Your task to perform on an android device: stop showing notifications on the lock screen Image 0: 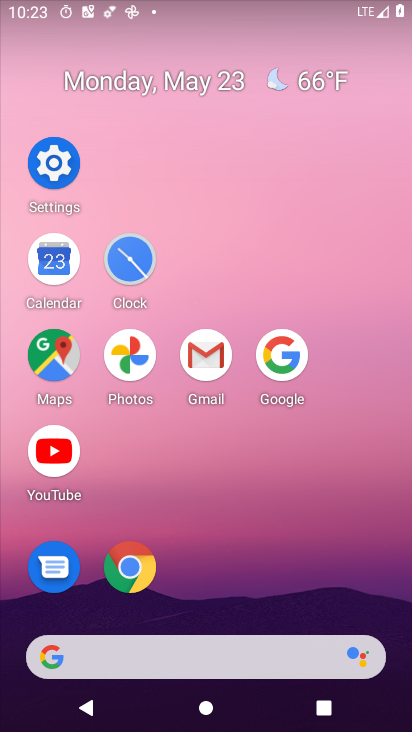
Step 0: click (58, 175)
Your task to perform on an android device: stop showing notifications on the lock screen Image 1: 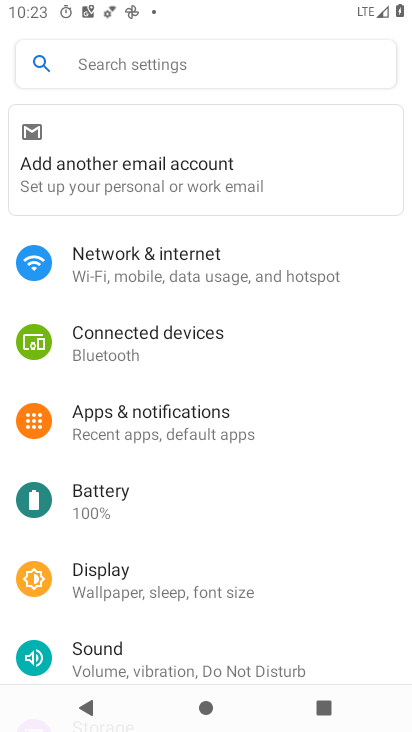
Step 1: click (176, 417)
Your task to perform on an android device: stop showing notifications on the lock screen Image 2: 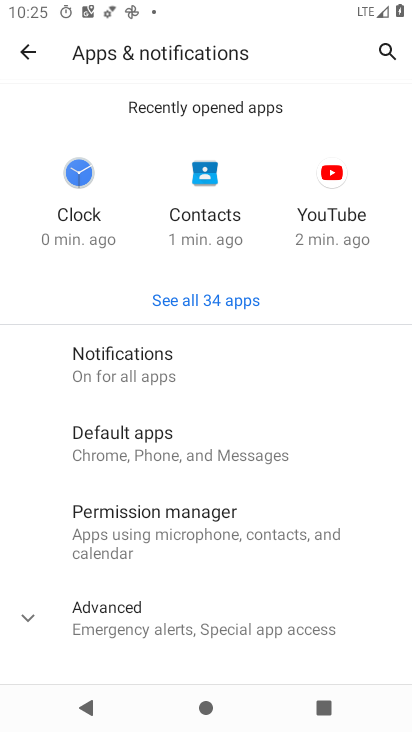
Step 2: click (116, 375)
Your task to perform on an android device: stop showing notifications on the lock screen Image 3: 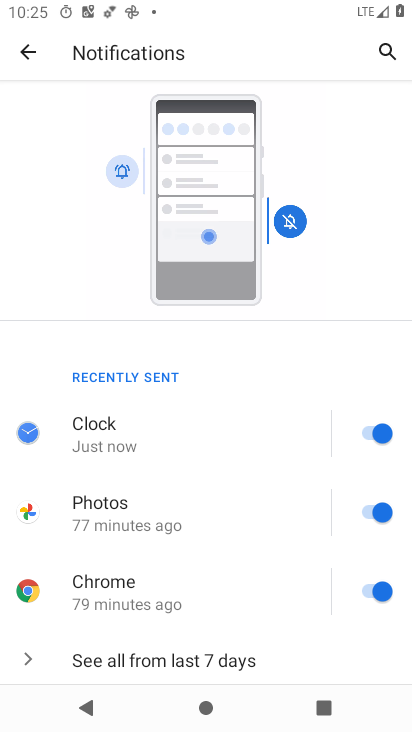
Step 3: drag from (205, 598) to (214, 122)
Your task to perform on an android device: stop showing notifications on the lock screen Image 4: 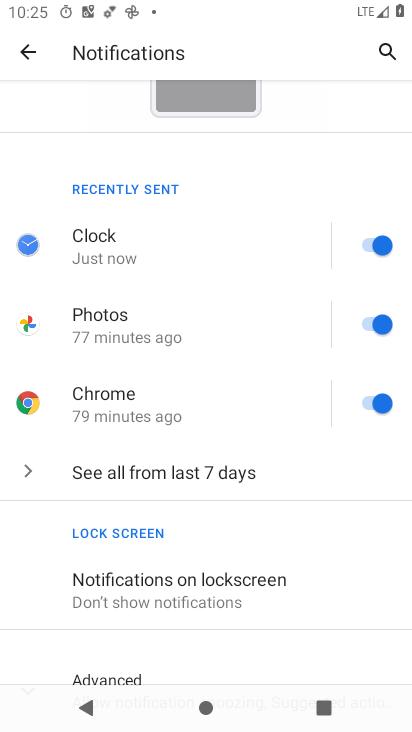
Step 4: click (208, 605)
Your task to perform on an android device: stop showing notifications on the lock screen Image 5: 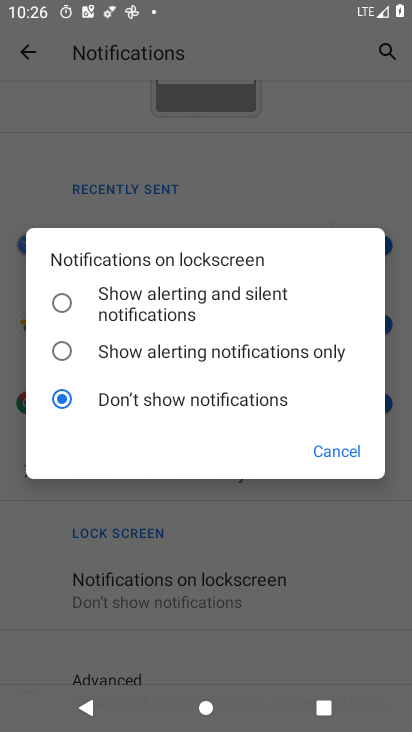
Step 5: task complete